Your task to perform on an android device: toggle show notifications on the lock screen Image 0: 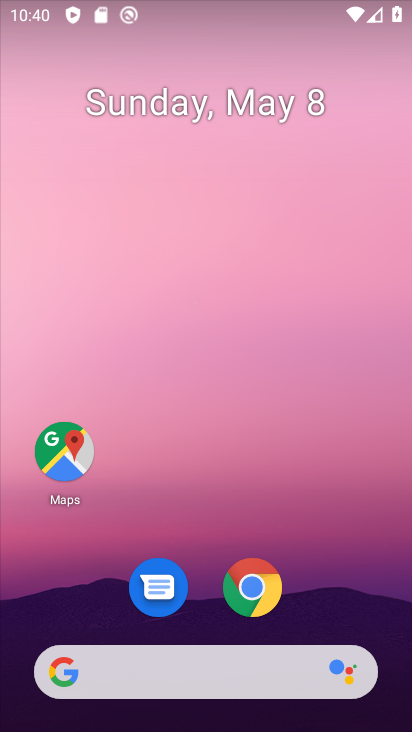
Step 0: drag from (396, 638) to (202, 28)
Your task to perform on an android device: toggle show notifications on the lock screen Image 1: 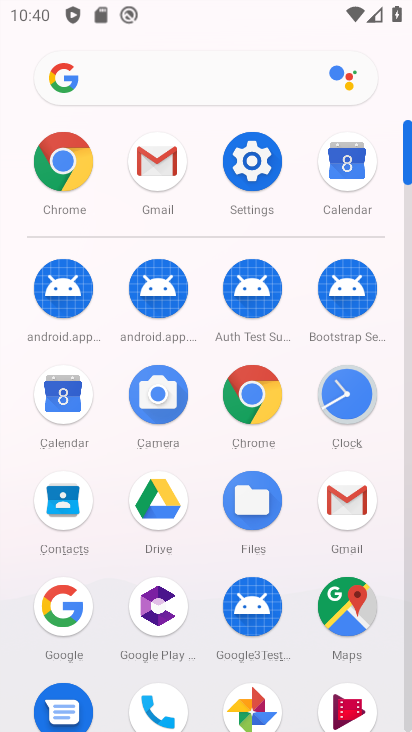
Step 1: click (245, 161)
Your task to perform on an android device: toggle show notifications on the lock screen Image 2: 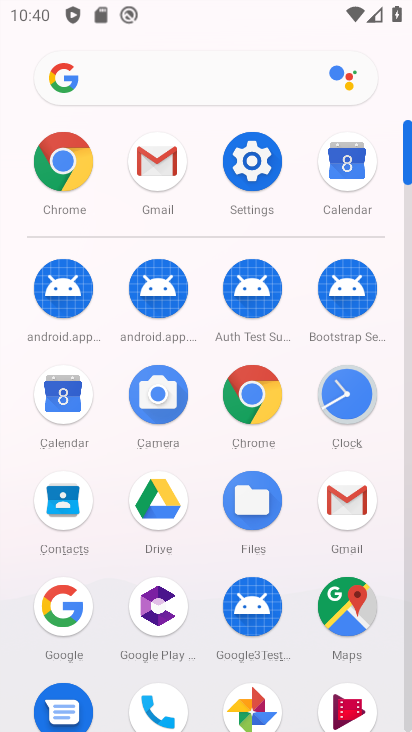
Step 2: click (245, 161)
Your task to perform on an android device: toggle show notifications on the lock screen Image 3: 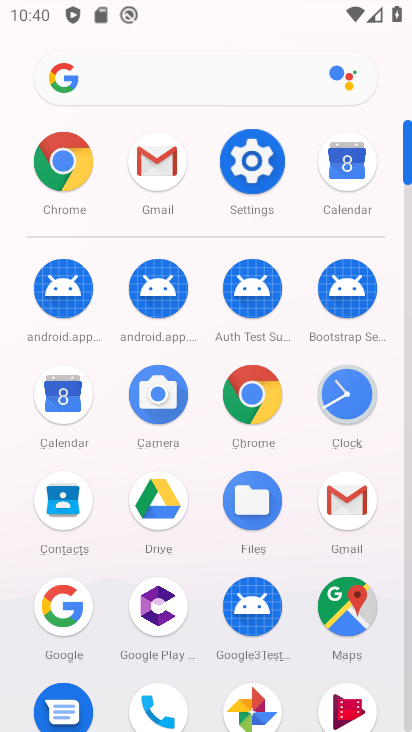
Step 3: click (245, 161)
Your task to perform on an android device: toggle show notifications on the lock screen Image 4: 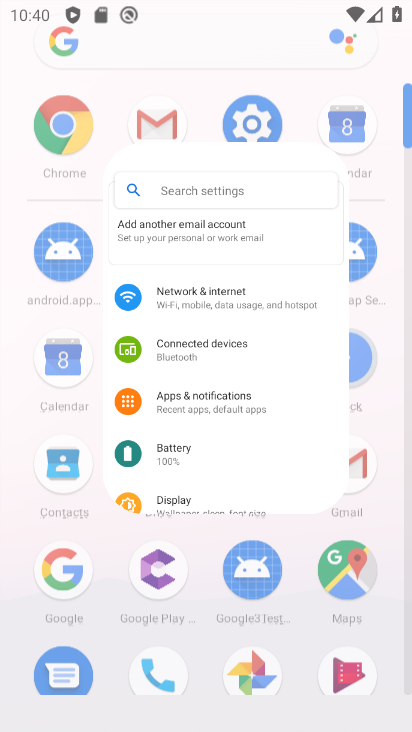
Step 4: click (245, 161)
Your task to perform on an android device: toggle show notifications on the lock screen Image 5: 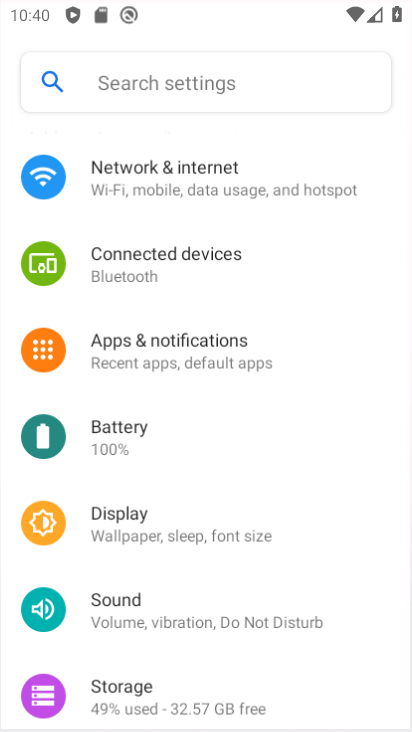
Step 5: click (243, 163)
Your task to perform on an android device: toggle show notifications on the lock screen Image 6: 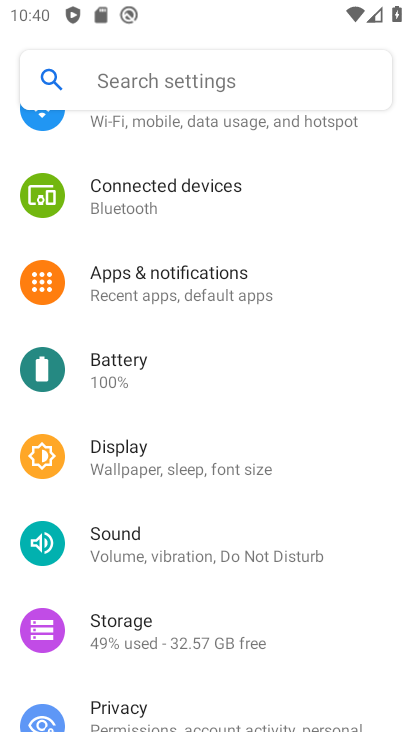
Step 6: click (241, 169)
Your task to perform on an android device: toggle show notifications on the lock screen Image 7: 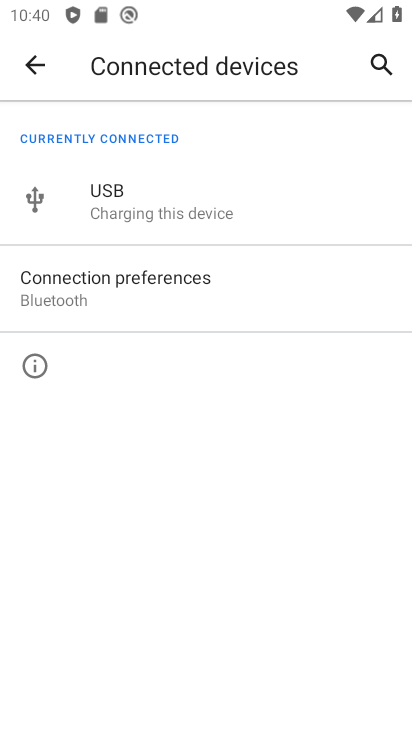
Step 7: click (35, 58)
Your task to perform on an android device: toggle show notifications on the lock screen Image 8: 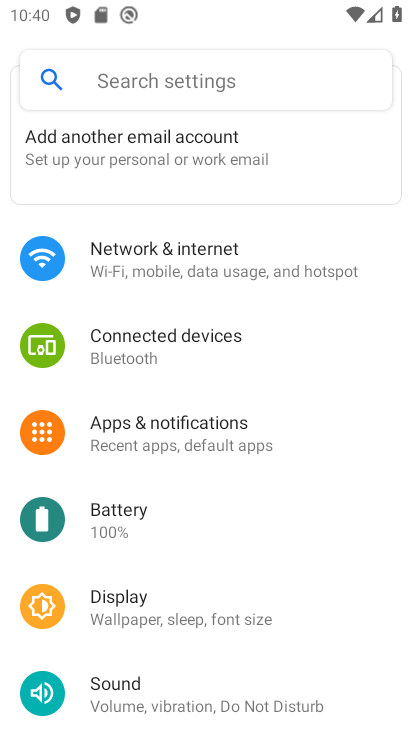
Step 8: click (164, 441)
Your task to perform on an android device: toggle show notifications on the lock screen Image 9: 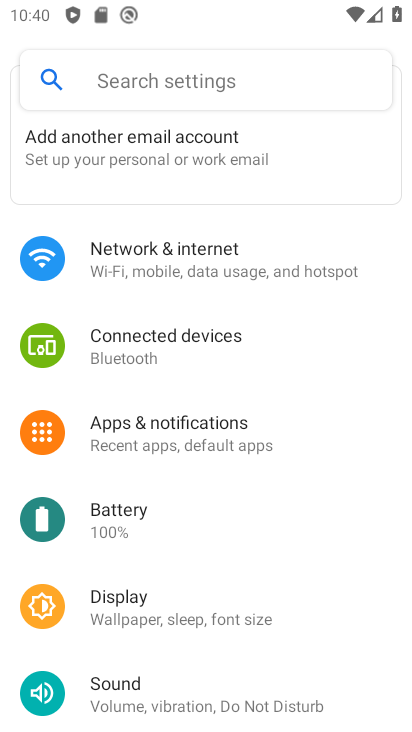
Step 9: click (162, 442)
Your task to perform on an android device: toggle show notifications on the lock screen Image 10: 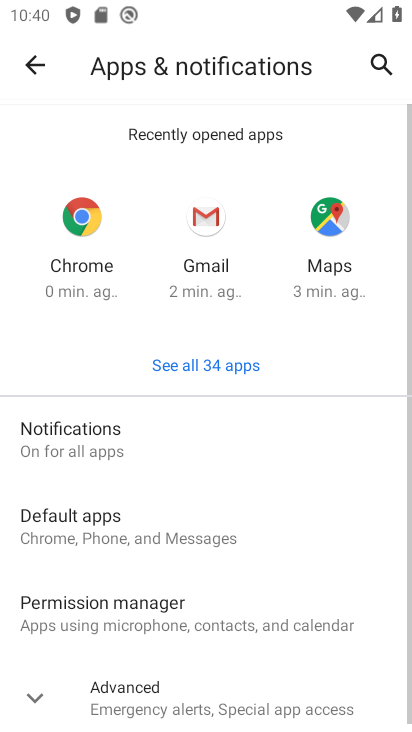
Step 10: click (59, 432)
Your task to perform on an android device: toggle show notifications on the lock screen Image 11: 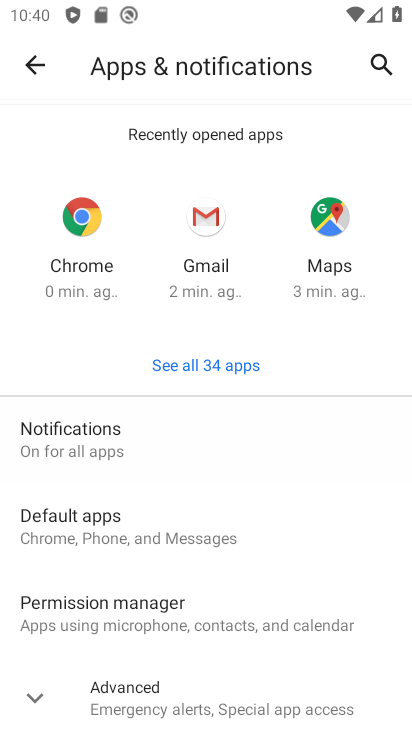
Step 11: click (59, 432)
Your task to perform on an android device: toggle show notifications on the lock screen Image 12: 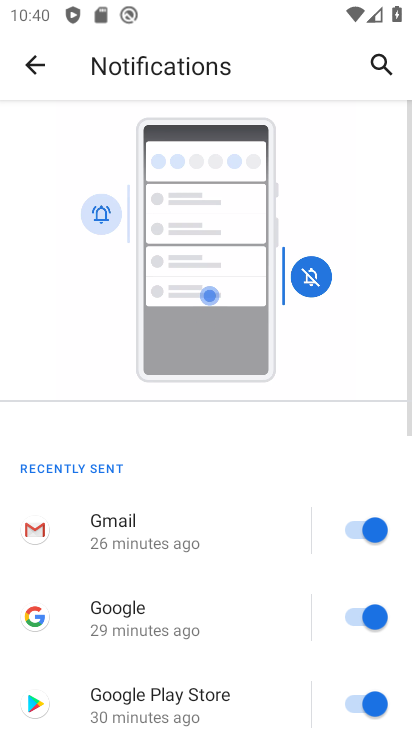
Step 12: drag from (169, 435) to (98, 183)
Your task to perform on an android device: toggle show notifications on the lock screen Image 13: 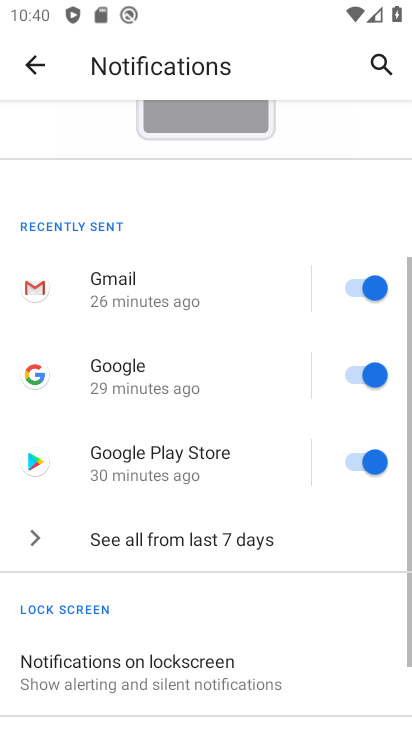
Step 13: drag from (198, 574) to (135, 119)
Your task to perform on an android device: toggle show notifications on the lock screen Image 14: 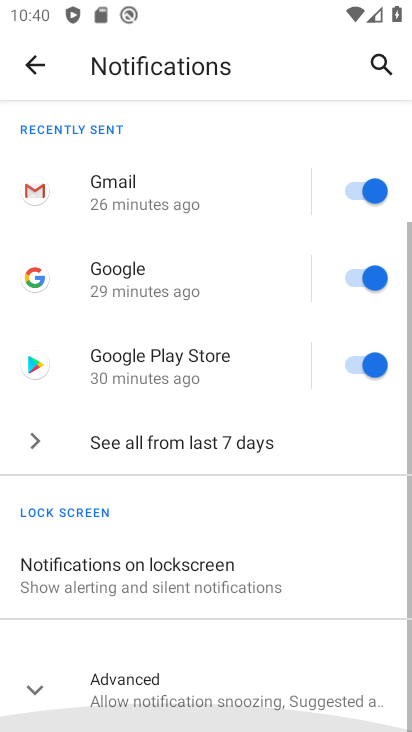
Step 14: drag from (243, 504) to (183, 195)
Your task to perform on an android device: toggle show notifications on the lock screen Image 15: 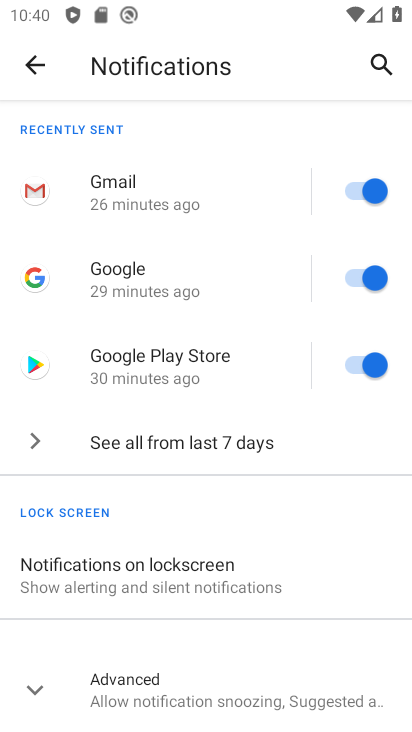
Step 15: click (124, 580)
Your task to perform on an android device: toggle show notifications on the lock screen Image 16: 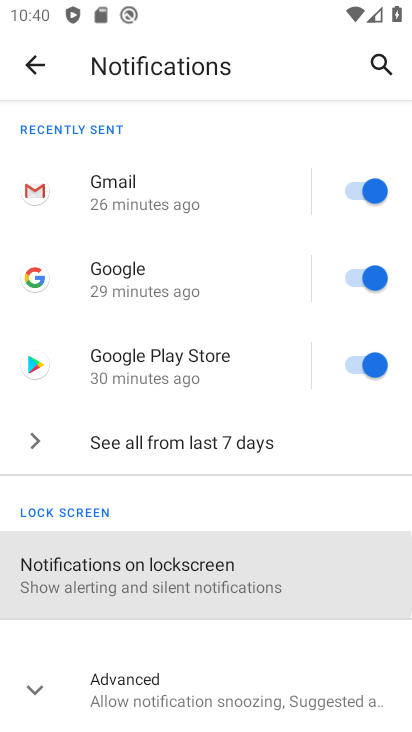
Step 16: click (124, 580)
Your task to perform on an android device: toggle show notifications on the lock screen Image 17: 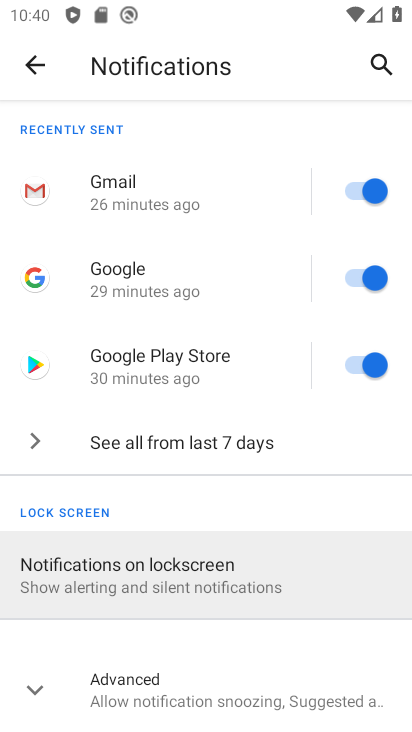
Step 17: click (124, 580)
Your task to perform on an android device: toggle show notifications on the lock screen Image 18: 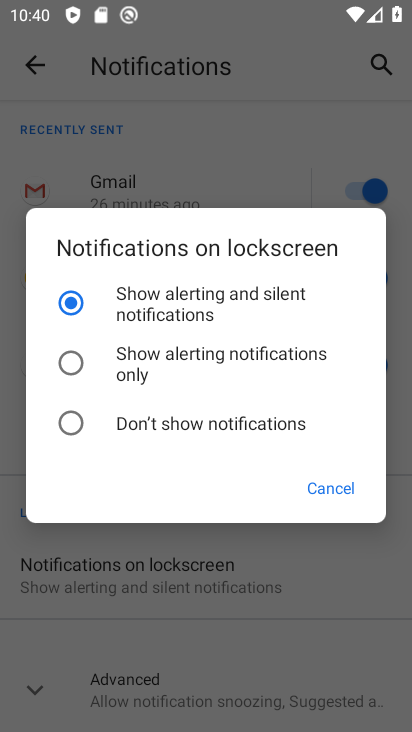
Step 18: click (124, 580)
Your task to perform on an android device: toggle show notifications on the lock screen Image 19: 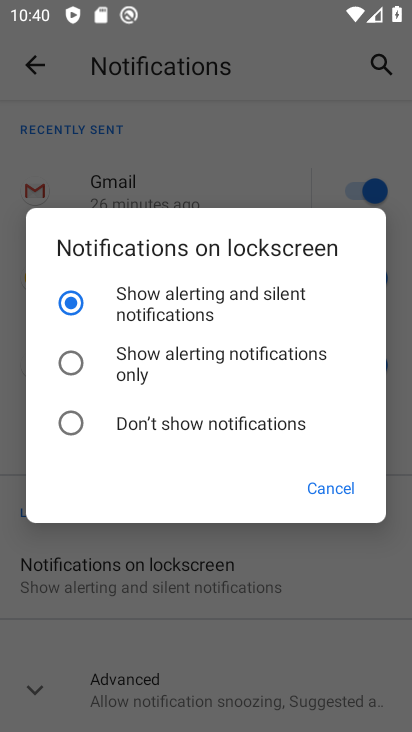
Step 19: click (328, 484)
Your task to perform on an android device: toggle show notifications on the lock screen Image 20: 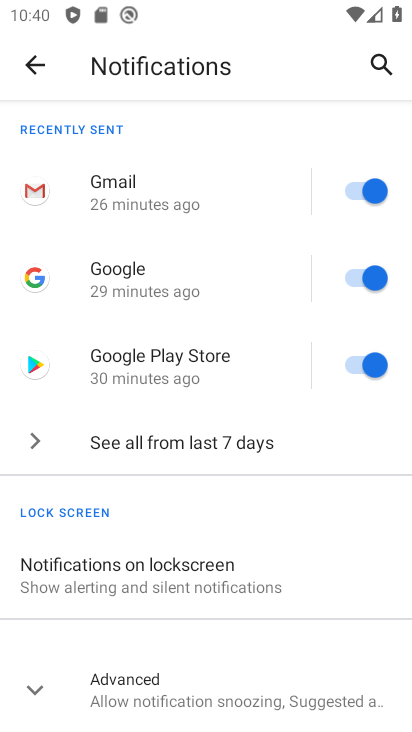
Step 20: task complete